Your task to perform on an android device: Show the shopping cart on newegg.com. Add "razer naga" to the cart on newegg.com Image 0: 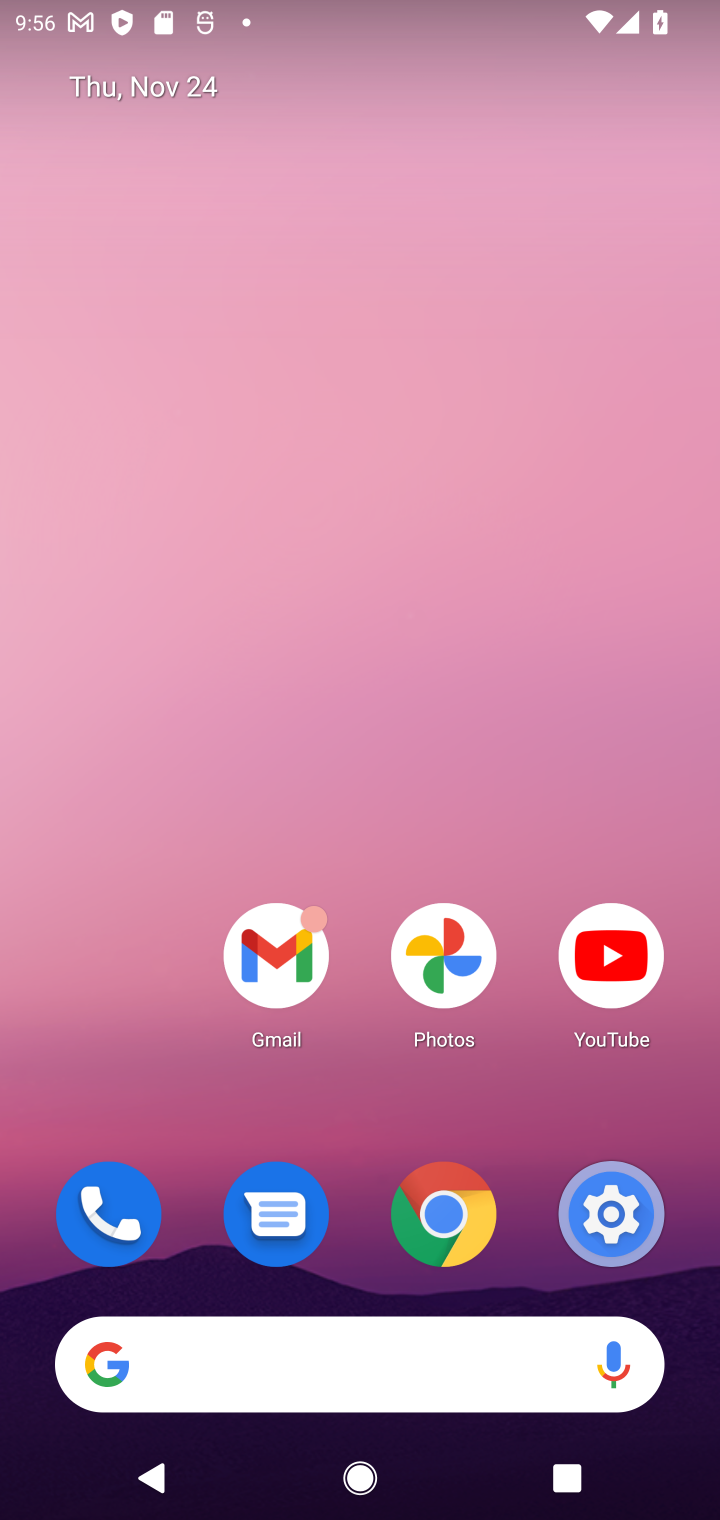
Step 0: click (280, 1336)
Your task to perform on an android device: Show the shopping cart on newegg.com. Add "razer naga" to the cart on newegg.com Image 1: 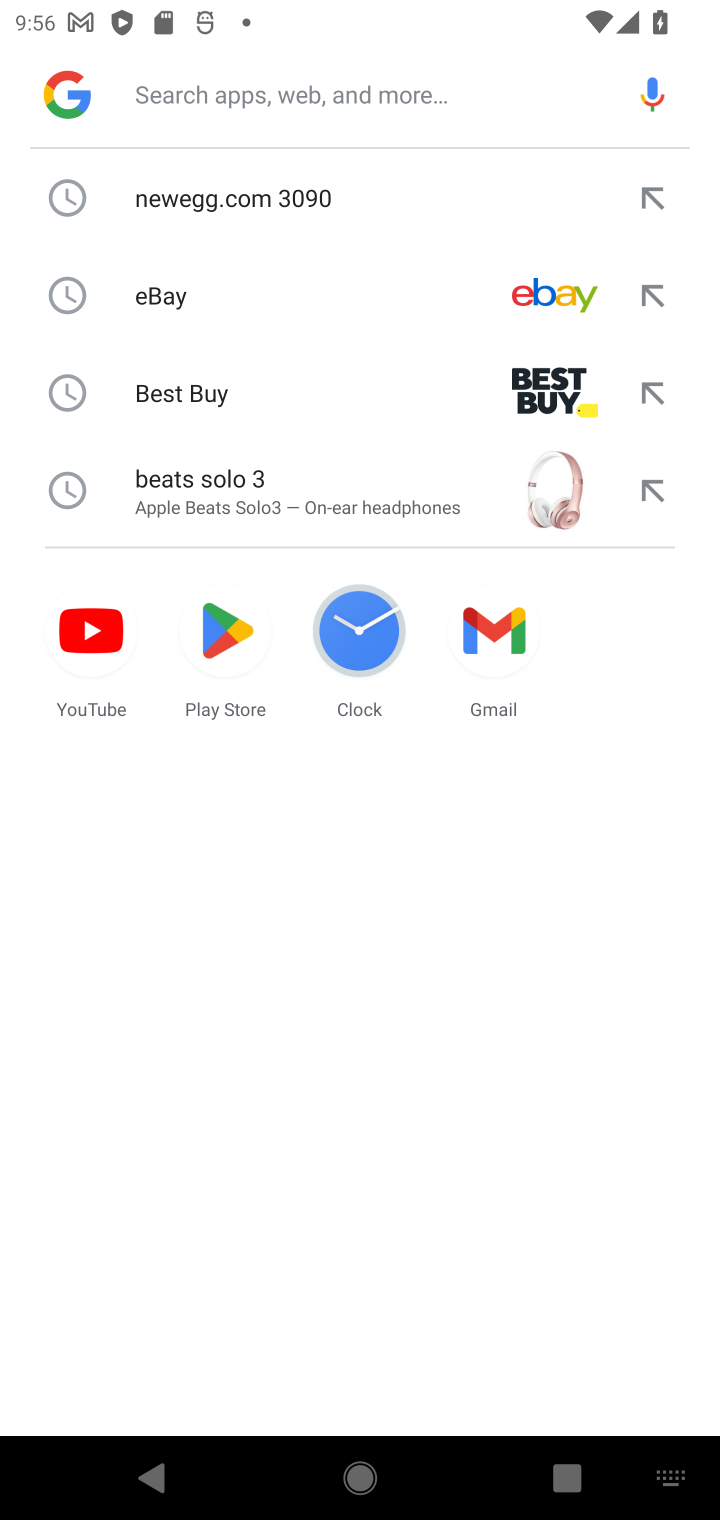
Step 1: type "newegg.com"
Your task to perform on an android device: Show the shopping cart on newegg.com. Add "razer naga" to the cart on newegg.com Image 2: 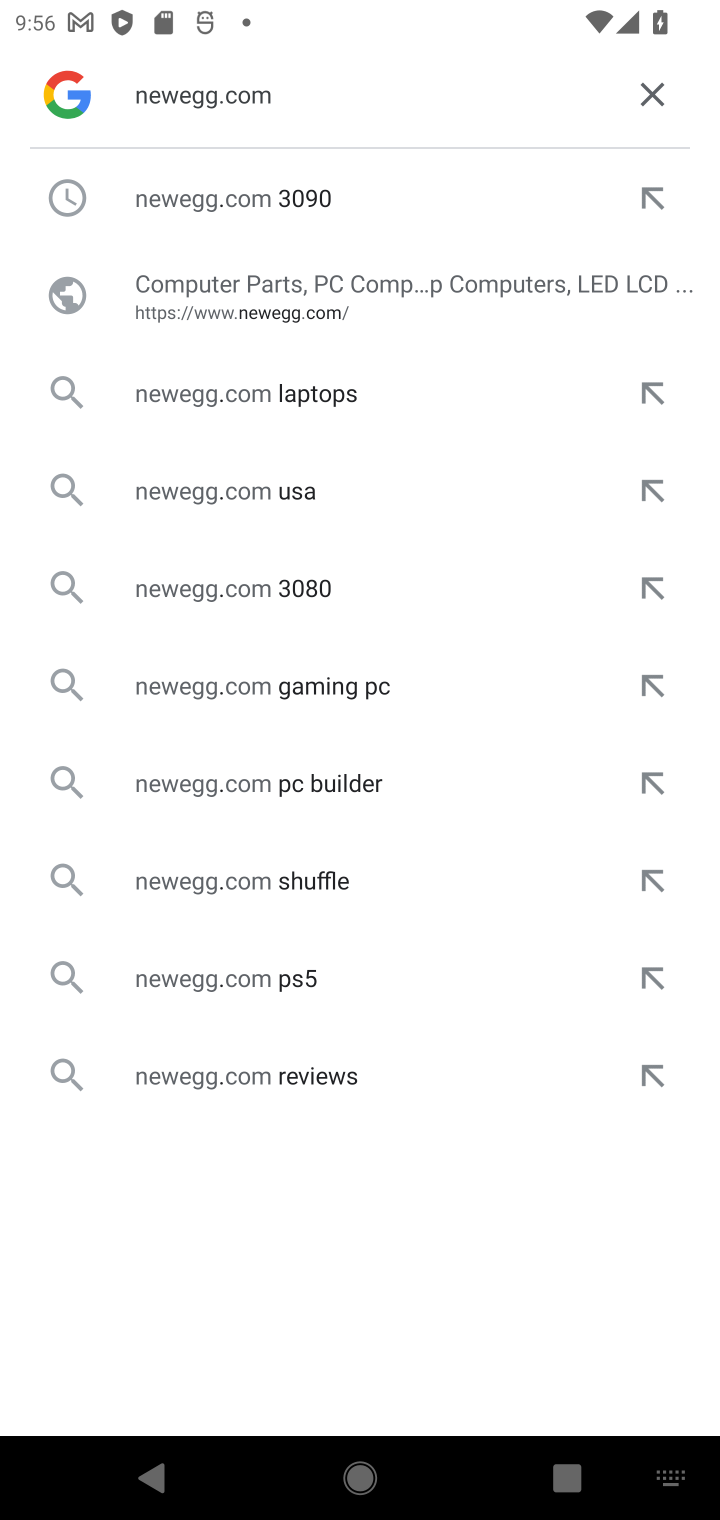
Step 2: click (313, 205)
Your task to perform on an android device: Show the shopping cart on newegg.com. Add "razer naga" to the cart on newegg.com Image 3: 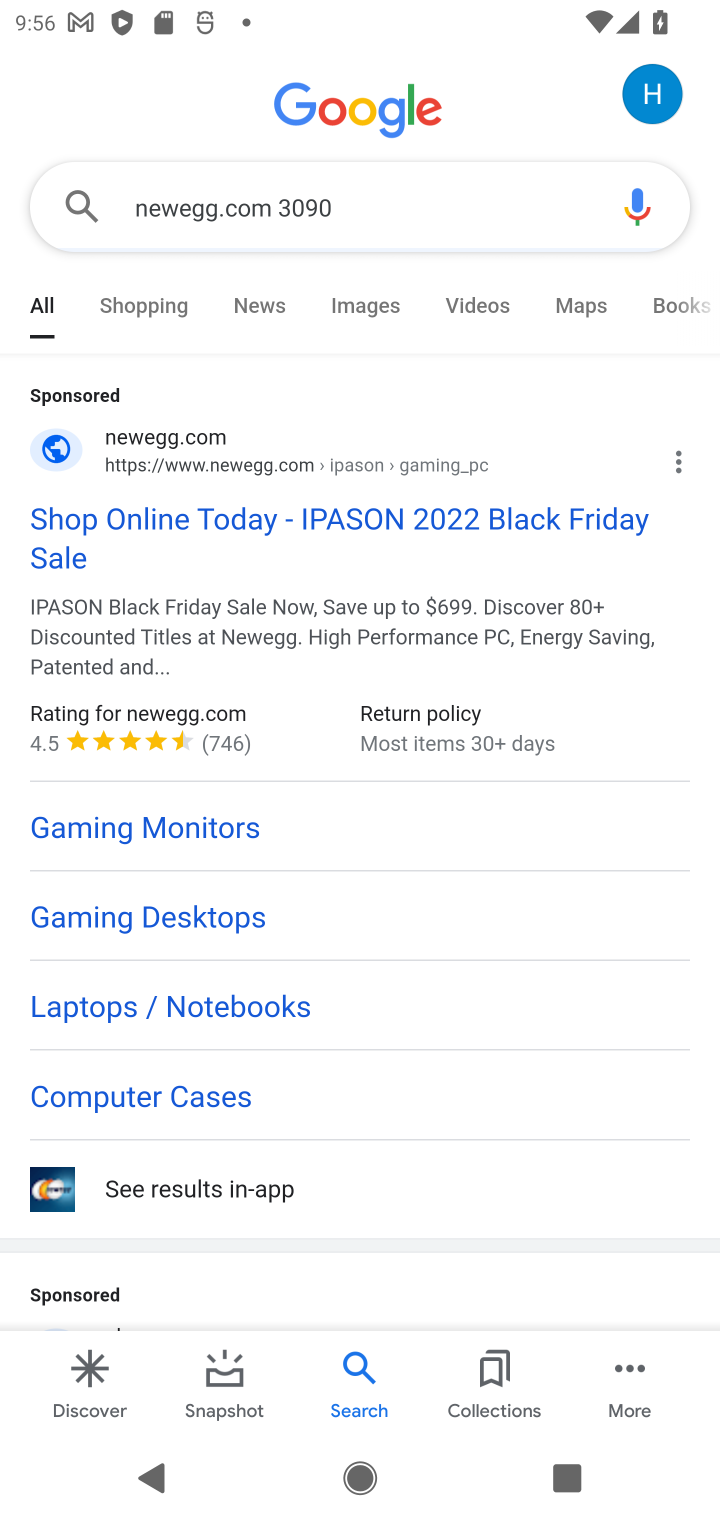
Step 3: click (205, 495)
Your task to perform on an android device: Show the shopping cart on newegg.com. Add "razer naga" to the cart on newegg.com Image 4: 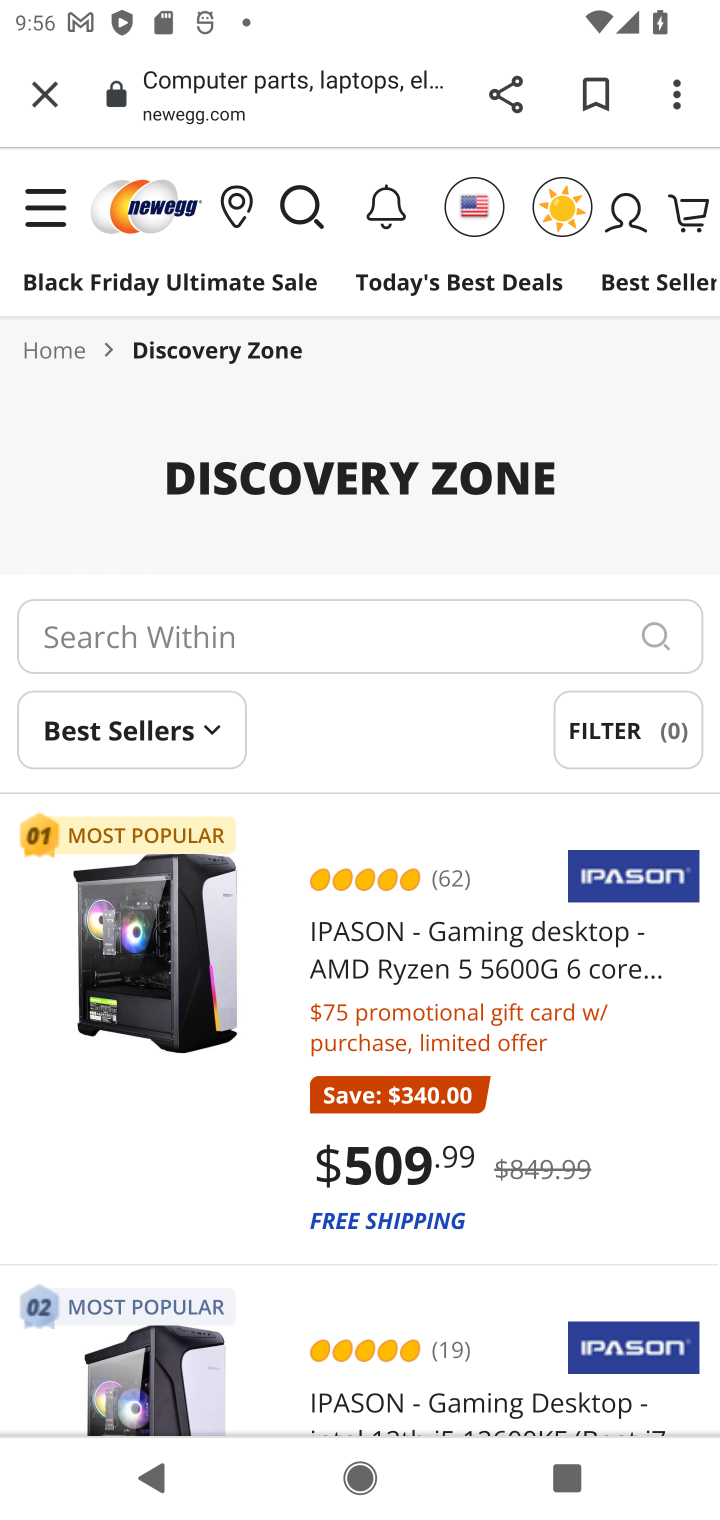
Step 4: click (209, 996)
Your task to perform on an android device: Show the shopping cart on newegg.com. Add "razer naga" to the cart on newegg.com Image 5: 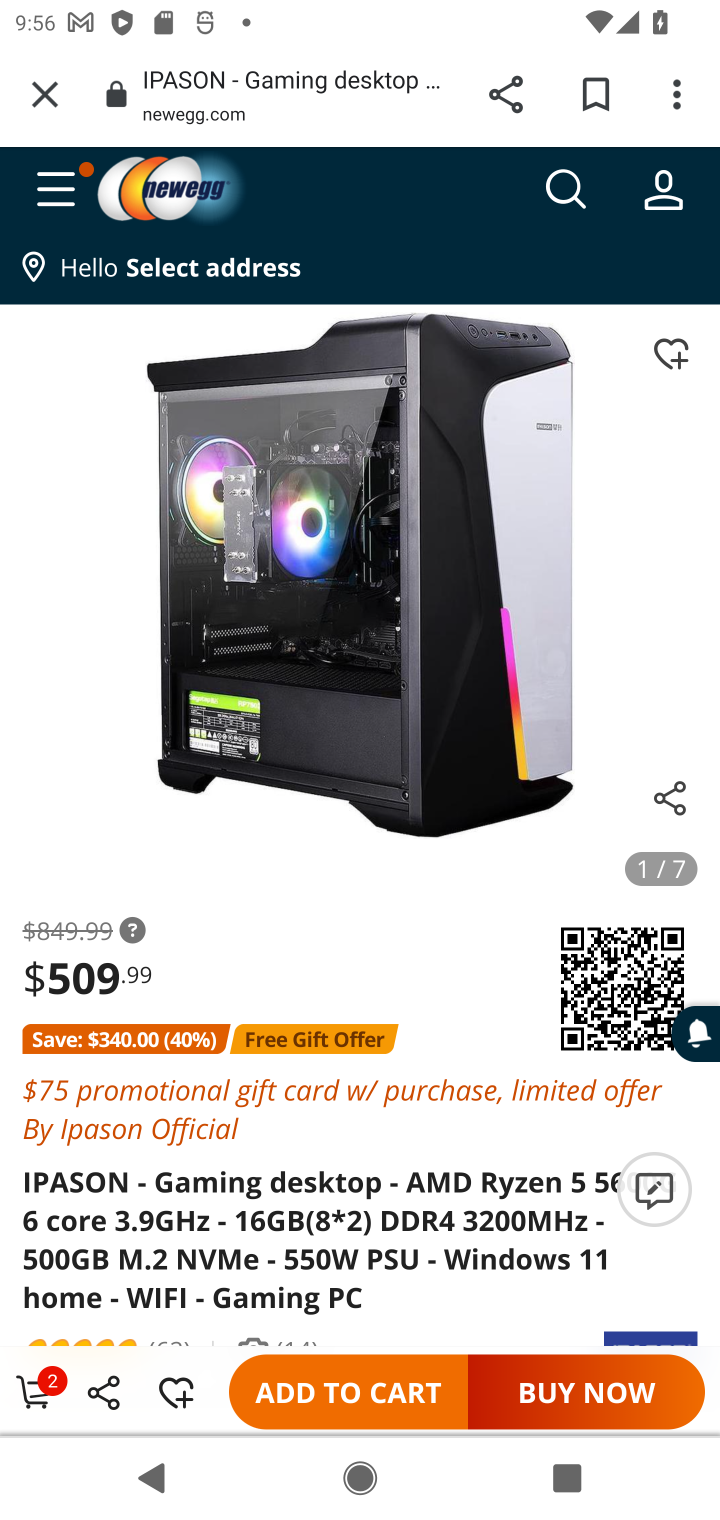
Step 5: click (337, 1400)
Your task to perform on an android device: Show the shopping cart on newegg.com. Add "razer naga" to the cart on newegg.com Image 6: 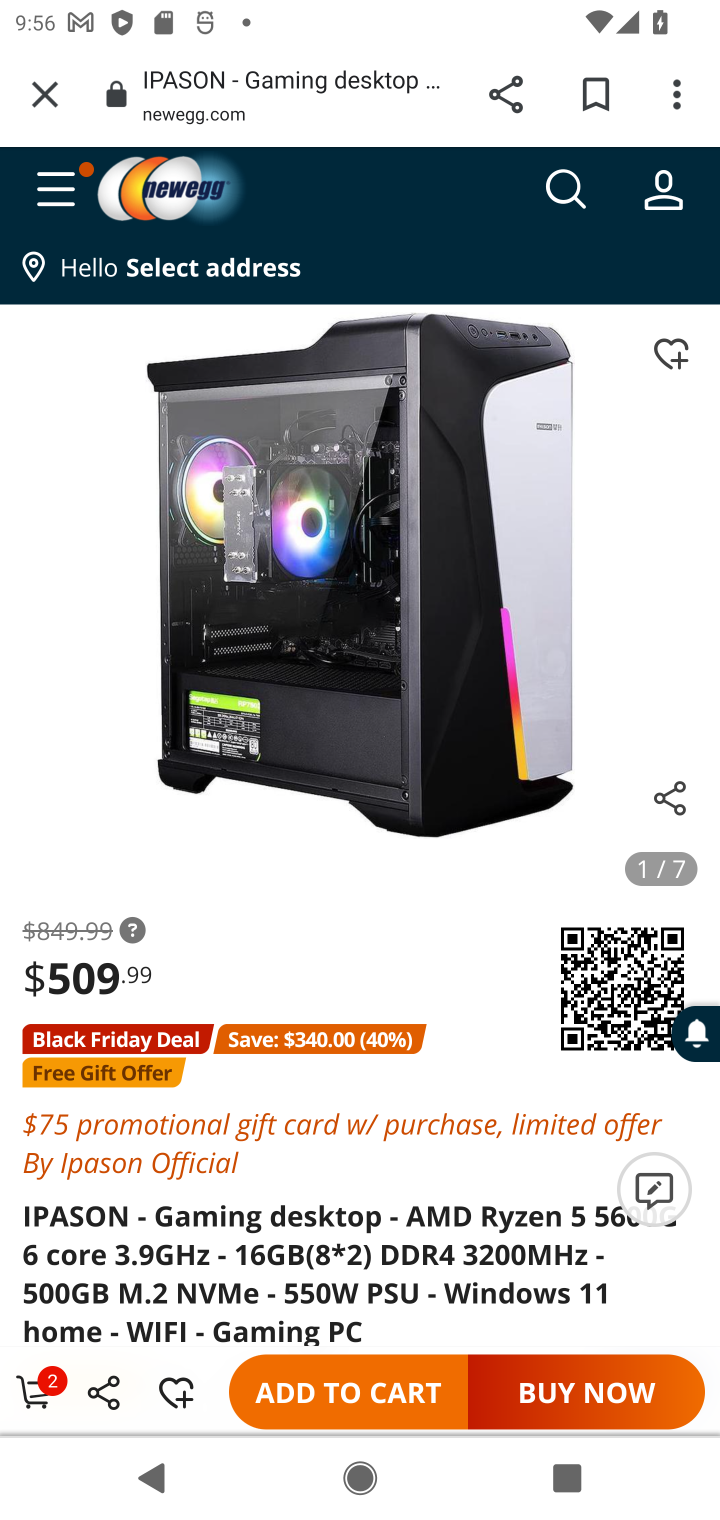
Step 6: task complete